Your task to perform on an android device: Open the Play Movies app and select the watchlist tab. Image 0: 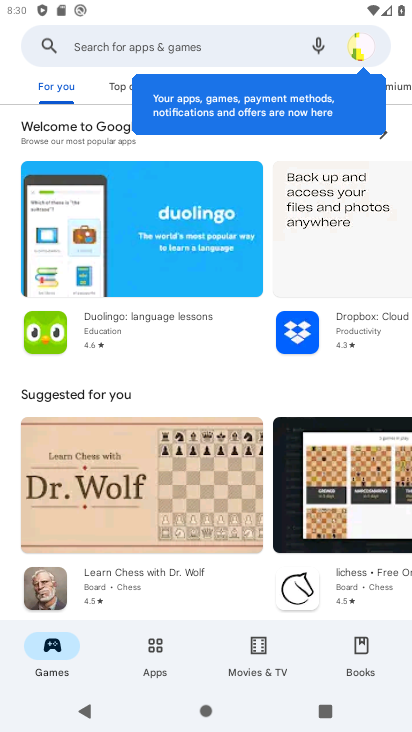
Step 0: press home button
Your task to perform on an android device: Open the Play Movies app and select the watchlist tab. Image 1: 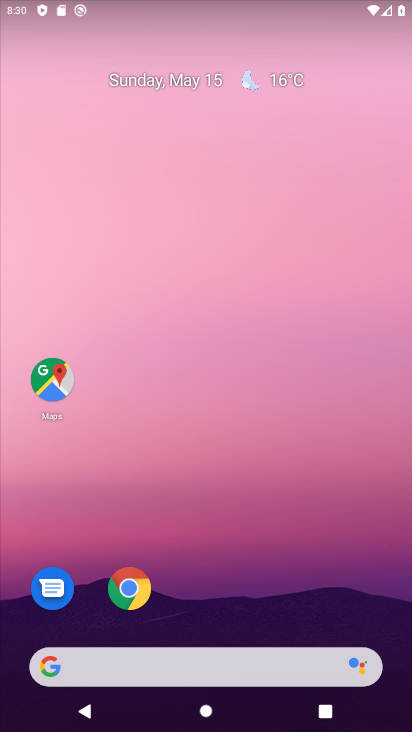
Step 1: drag from (262, 572) to (289, 243)
Your task to perform on an android device: Open the Play Movies app and select the watchlist tab. Image 2: 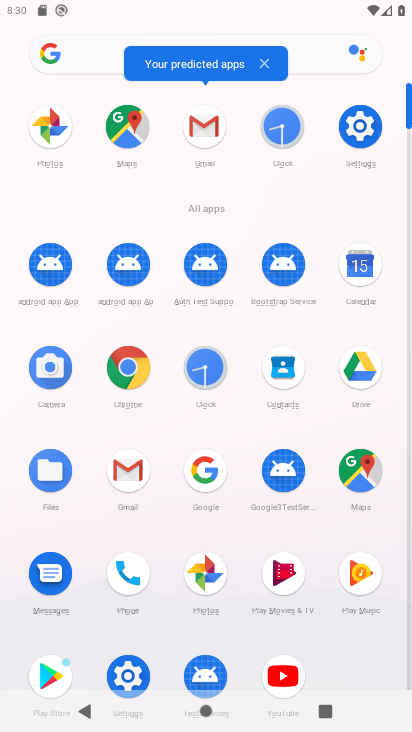
Step 2: click (290, 584)
Your task to perform on an android device: Open the Play Movies app and select the watchlist tab. Image 3: 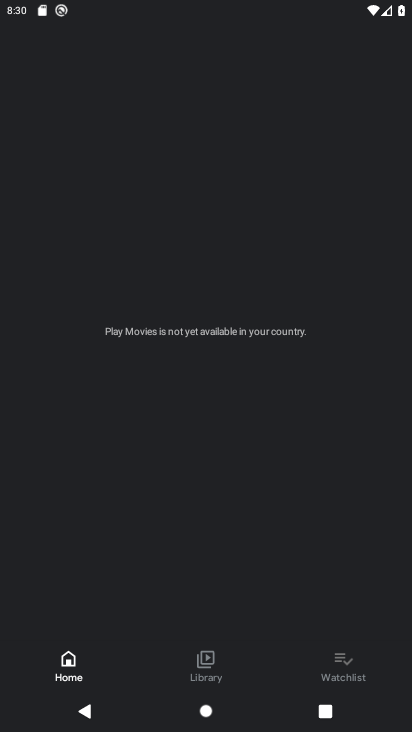
Step 3: click (344, 671)
Your task to perform on an android device: Open the Play Movies app and select the watchlist tab. Image 4: 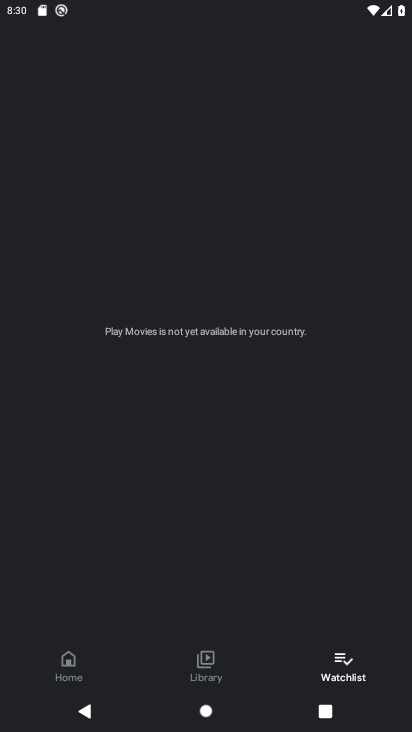
Step 4: task complete